Your task to perform on an android device: toggle airplane mode Image 0: 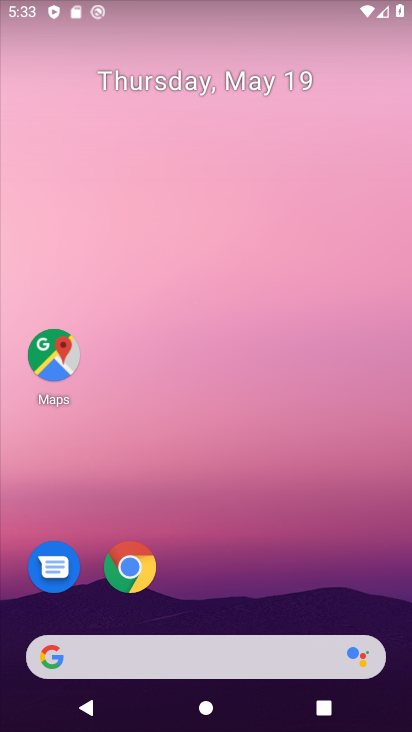
Step 0: drag from (243, 359) to (242, 115)
Your task to perform on an android device: toggle airplane mode Image 1: 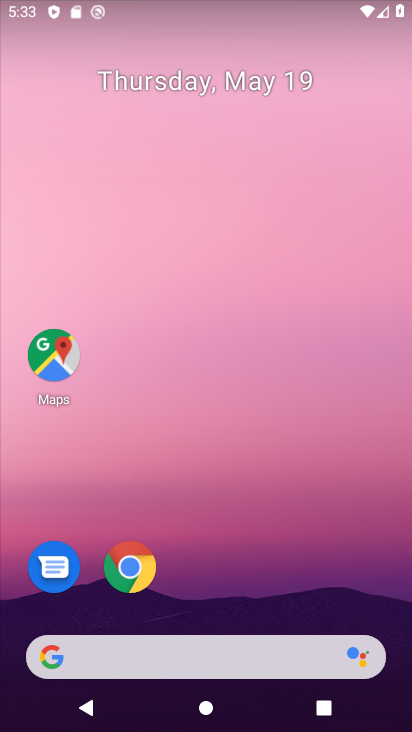
Step 1: drag from (258, 483) to (252, 3)
Your task to perform on an android device: toggle airplane mode Image 2: 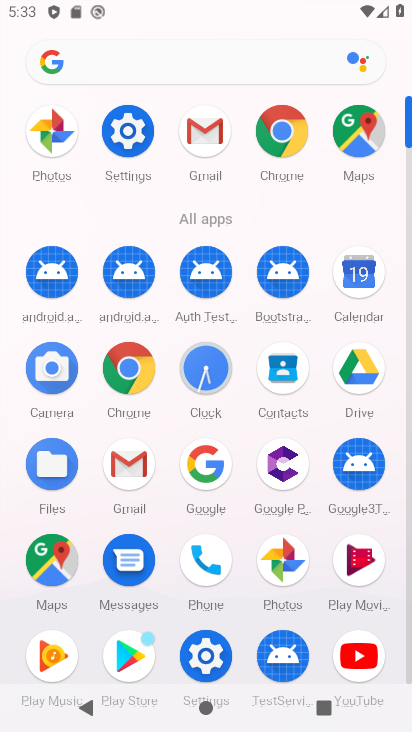
Step 2: click (123, 135)
Your task to perform on an android device: toggle airplane mode Image 3: 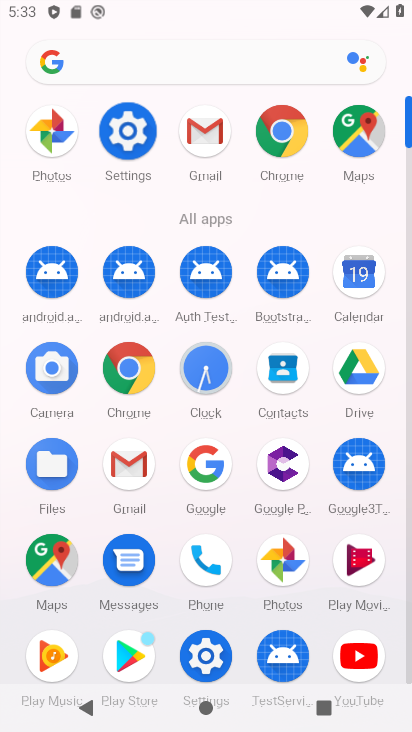
Step 3: click (124, 134)
Your task to perform on an android device: toggle airplane mode Image 4: 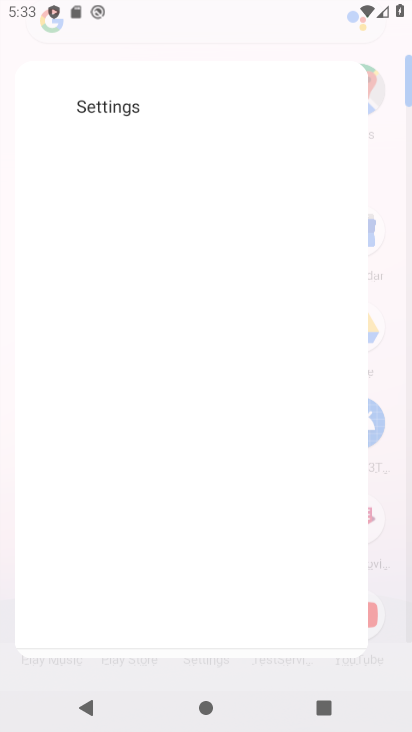
Step 4: click (123, 133)
Your task to perform on an android device: toggle airplane mode Image 5: 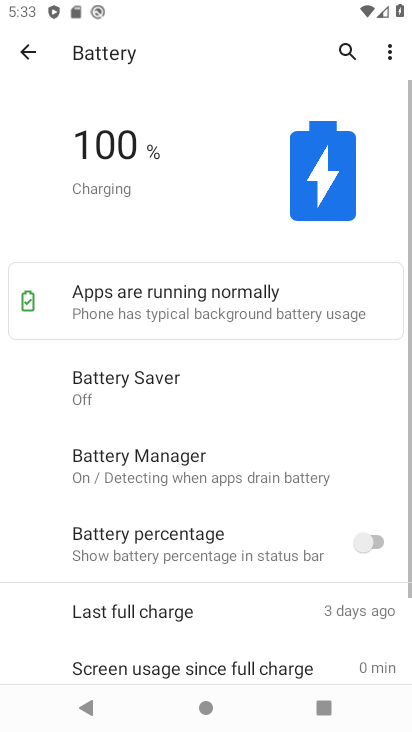
Step 5: click (28, 59)
Your task to perform on an android device: toggle airplane mode Image 6: 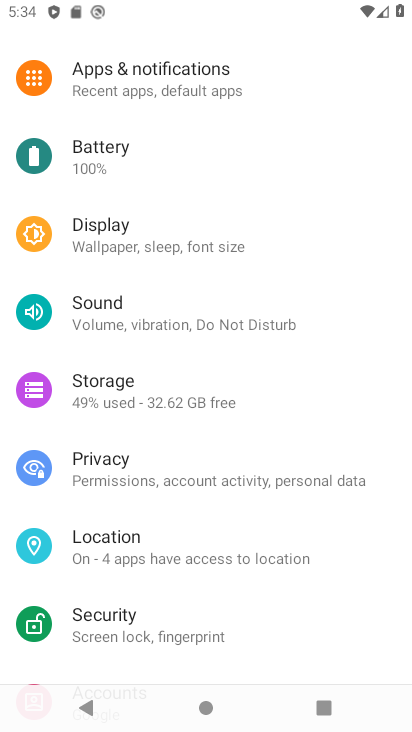
Step 6: drag from (124, 104) to (223, 515)
Your task to perform on an android device: toggle airplane mode Image 7: 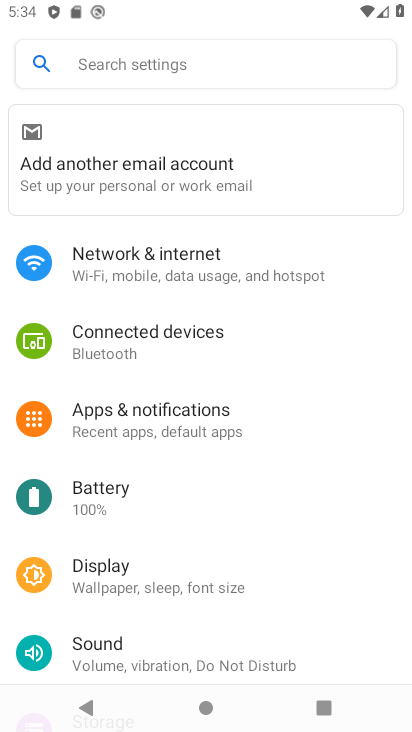
Step 7: drag from (192, 185) to (235, 562)
Your task to perform on an android device: toggle airplane mode Image 8: 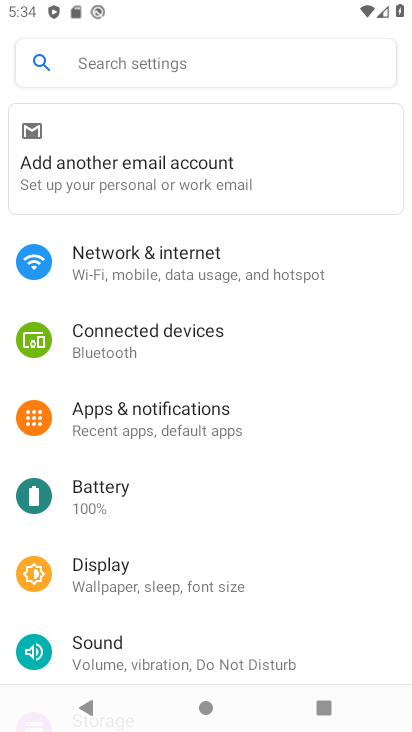
Step 8: click (188, 253)
Your task to perform on an android device: toggle airplane mode Image 9: 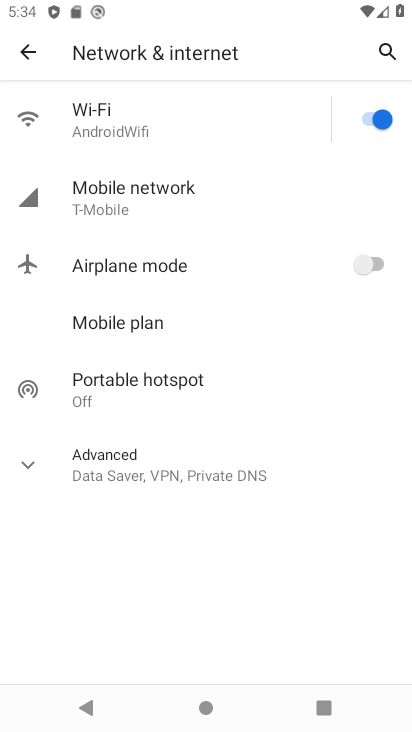
Step 9: click (352, 266)
Your task to perform on an android device: toggle airplane mode Image 10: 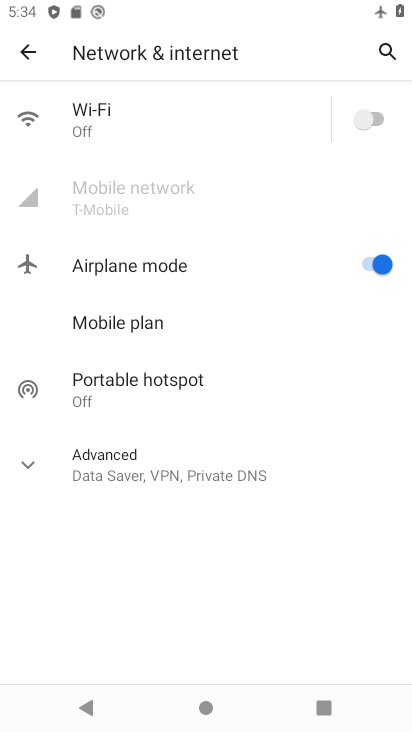
Step 10: task complete